Your task to perform on an android device: delete the emails in spam in the gmail app Image 0: 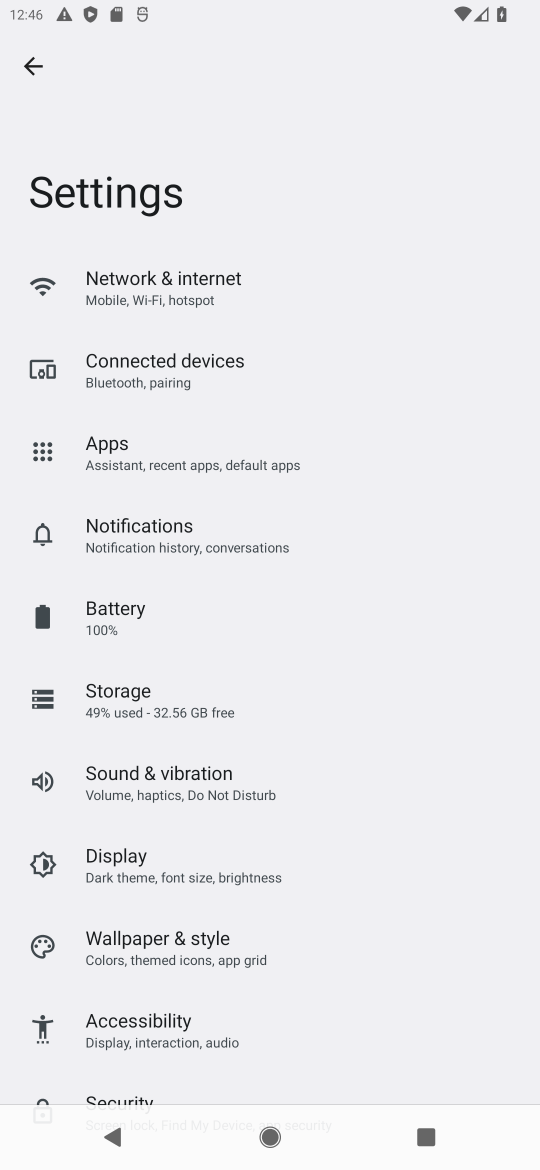
Step 0: press home button
Your task to perform on an android device: delete the emails in spam in the gmail app Image 1: 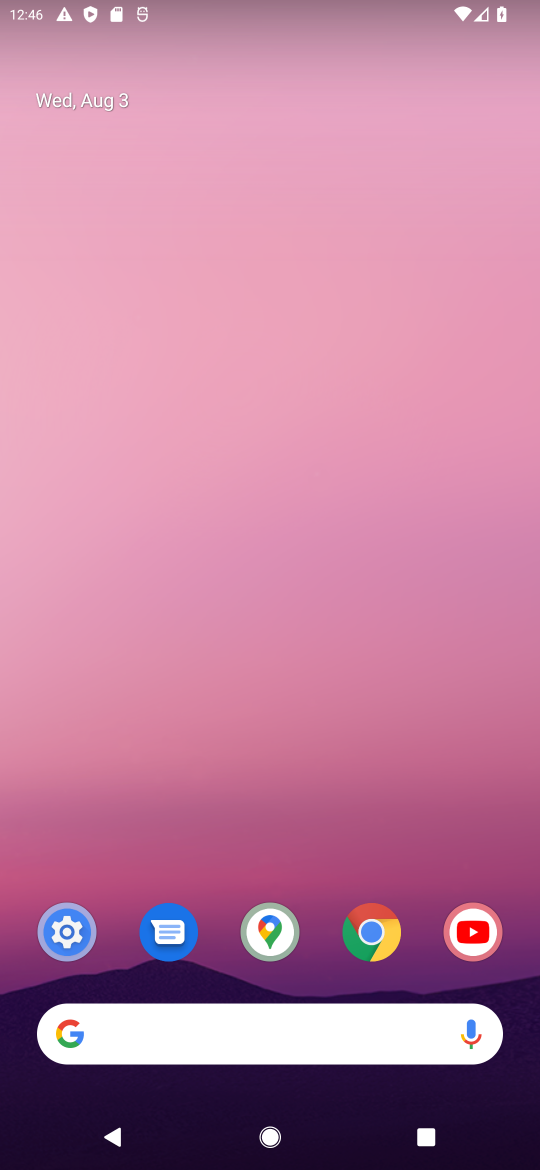
Step 1: drag from (350, 960) to (356, 242)
Your task to perform on an android device: delete the emails in spam in the gmail app Image 2: 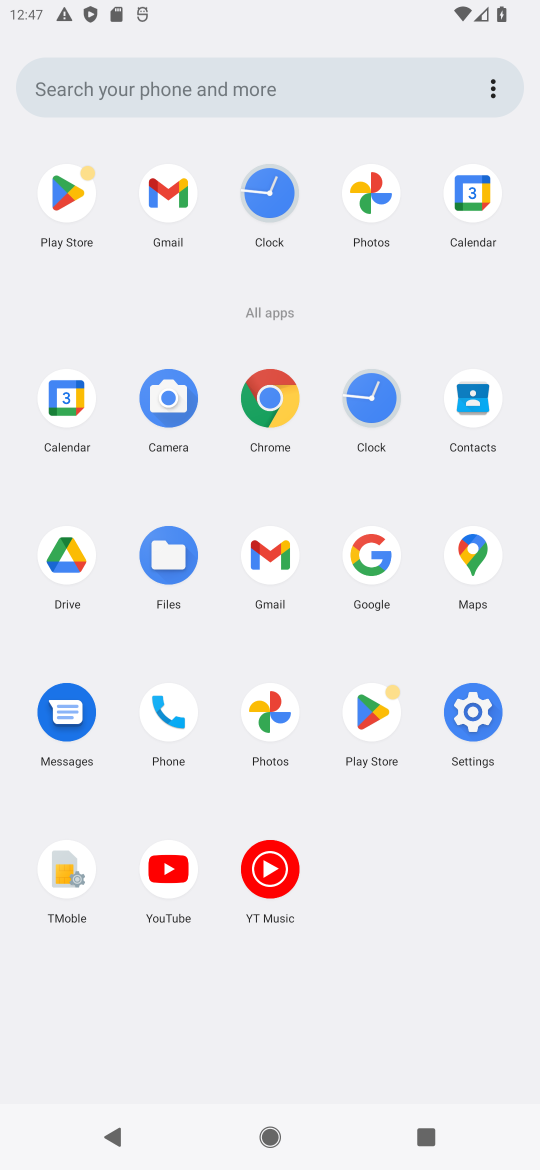
Step 2: click (163, 192)
Your task to perform on an android device: delete the emails in spam in the gmail app Image 3: 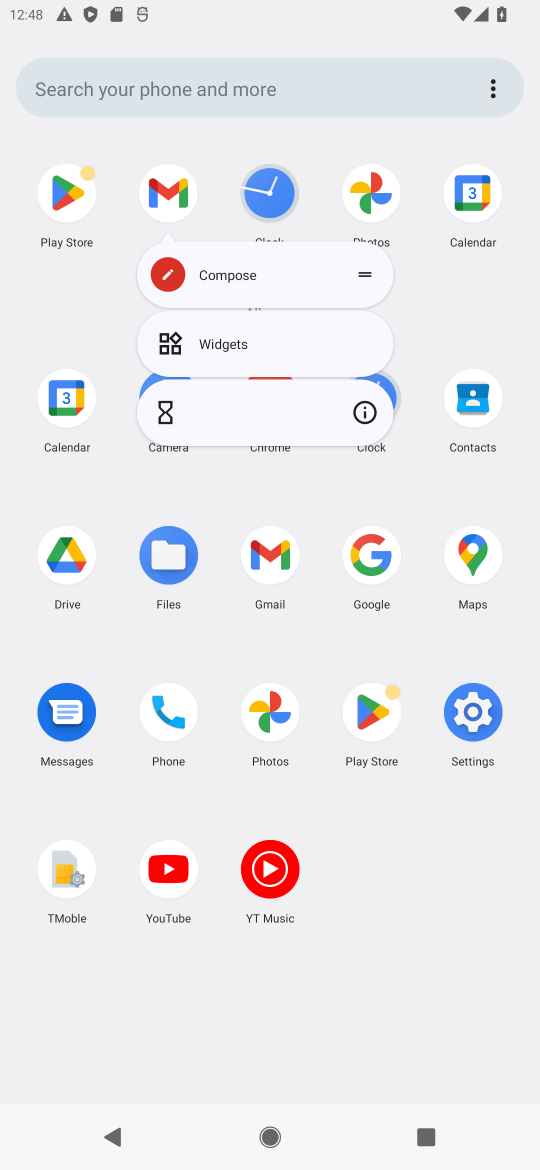
Step 3: click (182, 196)
Your task to perform on an android device: delete the emails in spam in the gmail app Image 4: 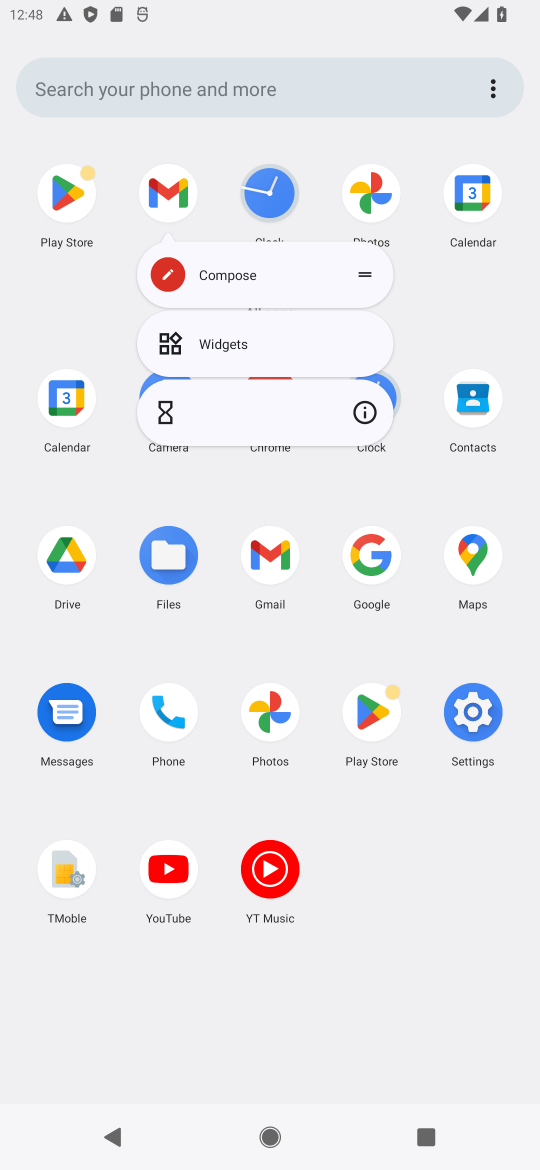
Step 4: click (188, 188)
Your task to perform on an android device: delete the emails in spam in the gmail app Image 5: 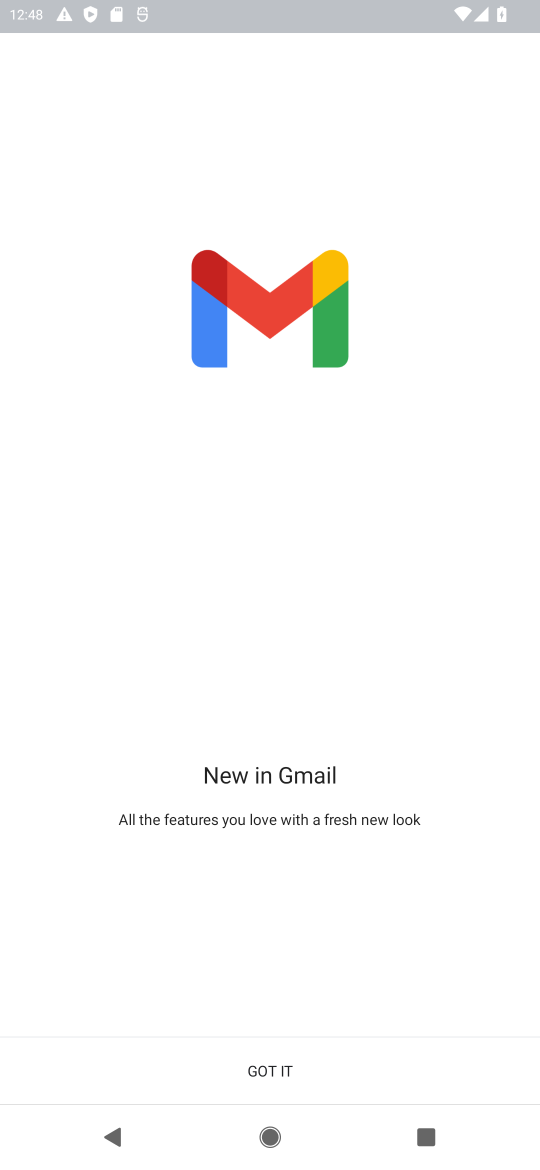
Step 5: click (231, 1095)
Your task to perform on an android device: delete the emails in spam in the gmail app Image 6: 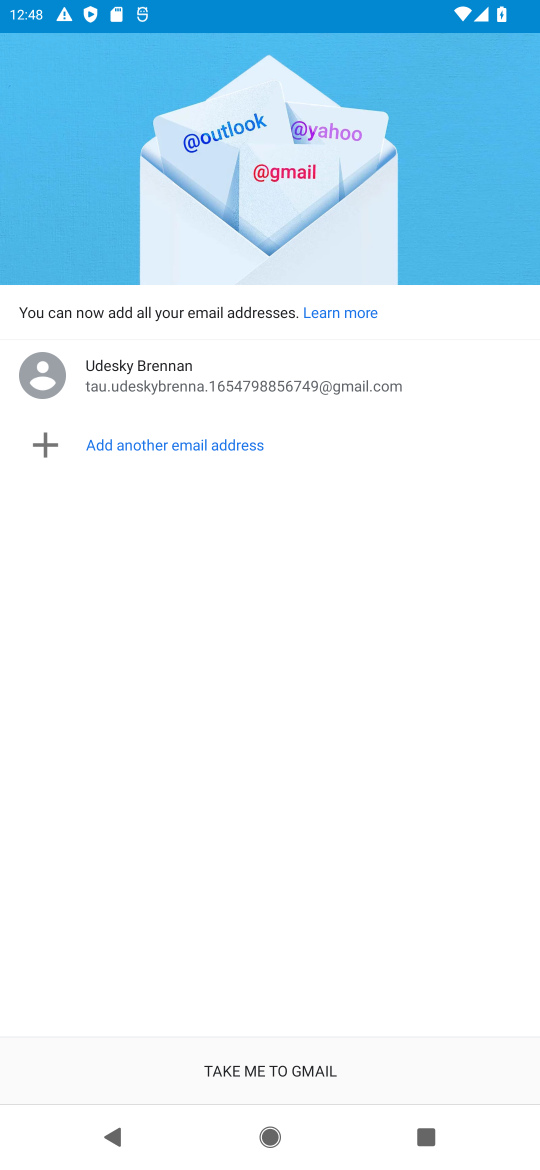
Step 6: click (253, 1068)
Your task to perform on an android device: delete the emails in spam in the gmail app Image 7: 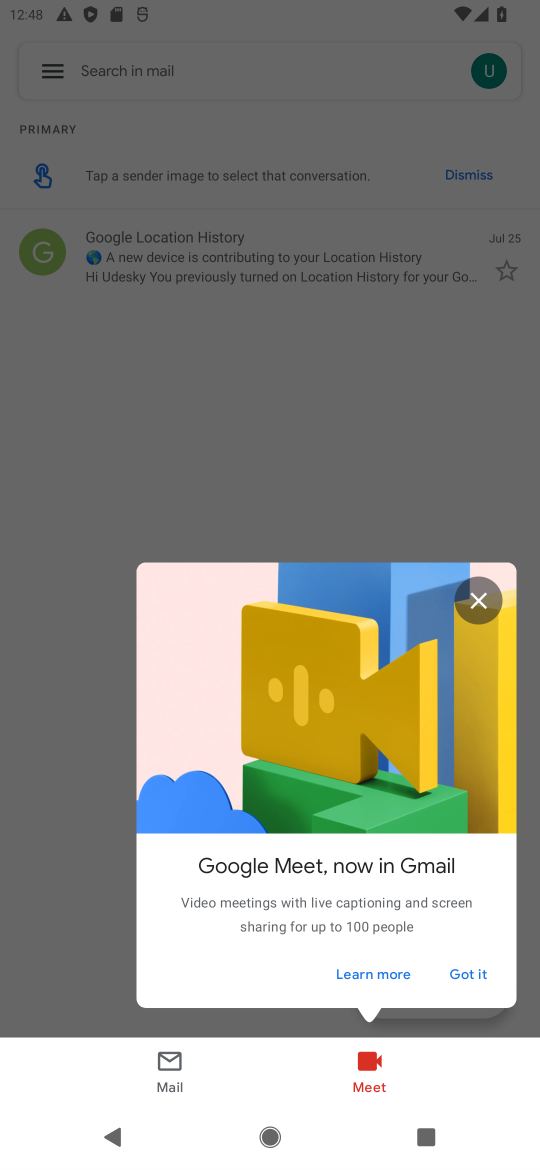
Step 7: click (499, 599)
Your task to perform on an android device: delete the emails in spam in the gmail app Image 8: 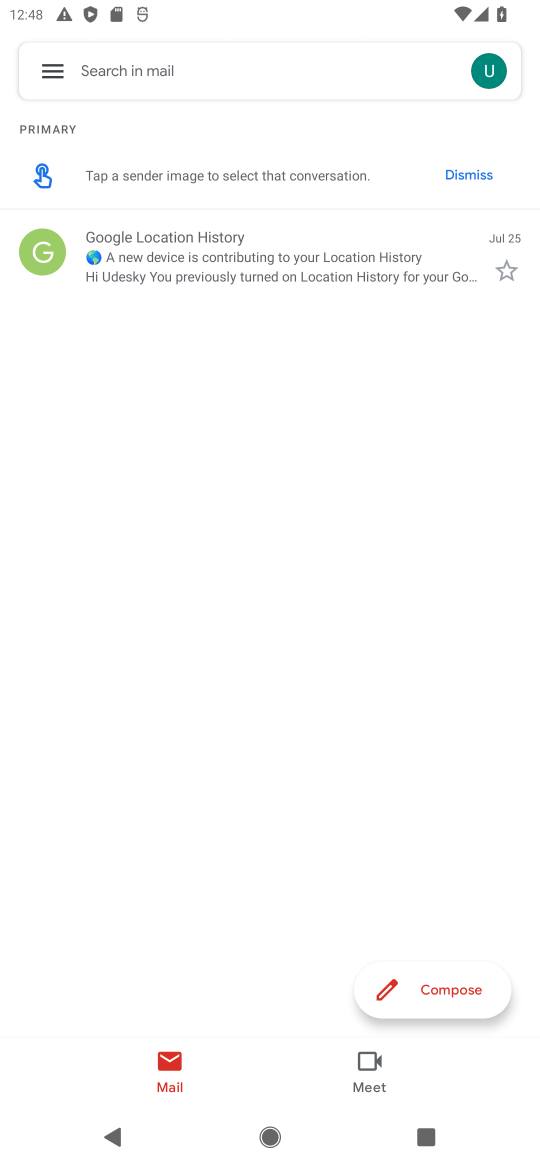
Step 8: click (307, 254)
Your task to perform on an android device: delete the emails in spam in the gmail app Image 9: 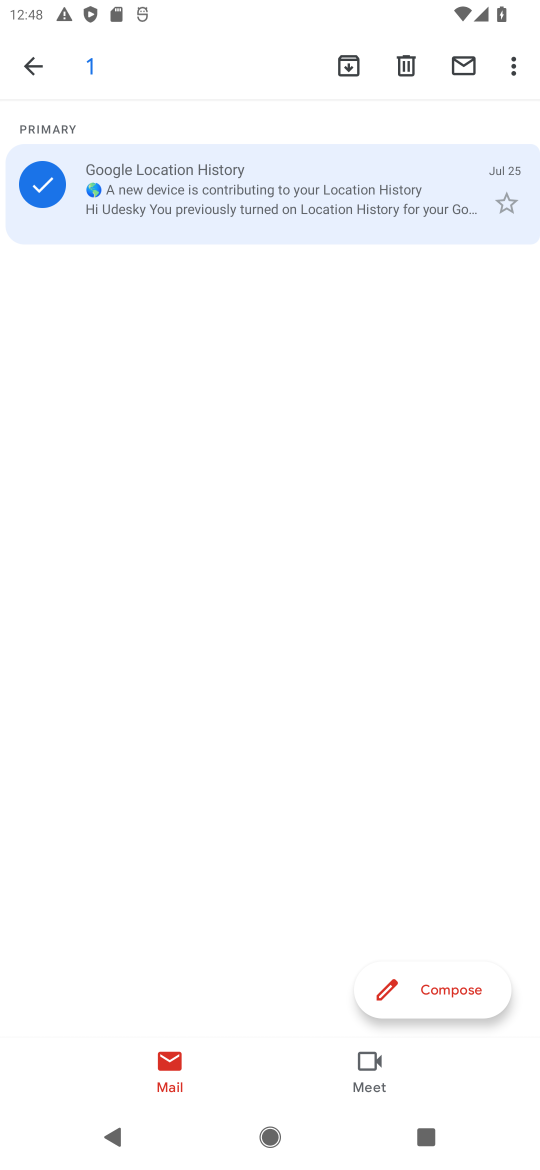
Step 9: click (419, 57)
Your task to perform on an android device: delete the emails in spam in the gmail app Image 10: 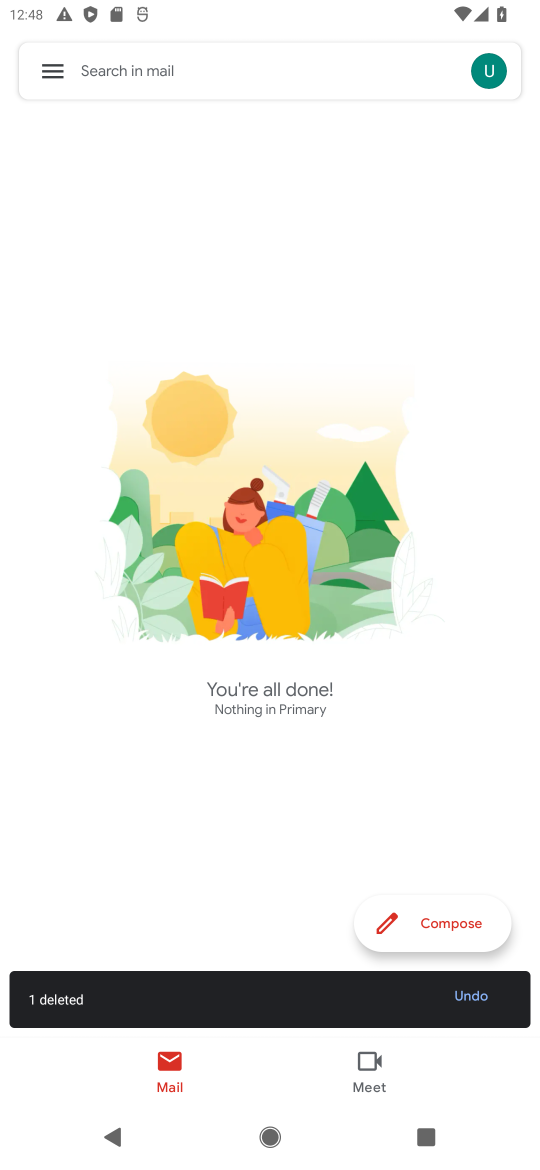
Step 10: task complete